Your task to perform on an android device: turn off translation in the chrome app Image 0: 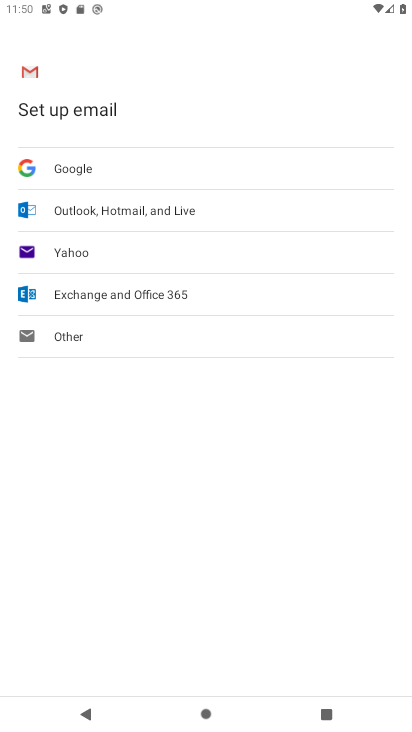
Step 0: press home button
Your task to perform on an android device: turn off translation in the chrome app Image 1: 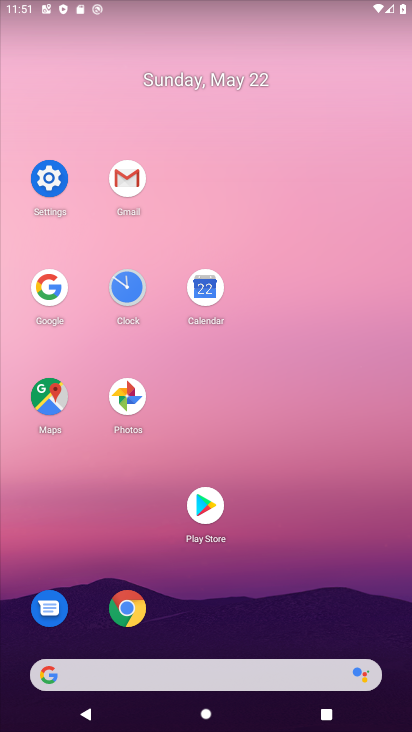
Step 1: click (137, 615)
Your task to perform on an android device: turn off translation in the chrome app Image 2: 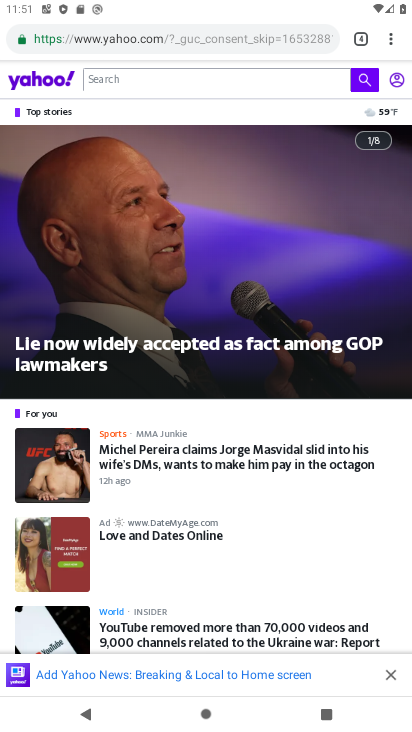
Step 2: click (389, 42)
Your task to perform on an android device: turn off translation in the chrome app Image 3: 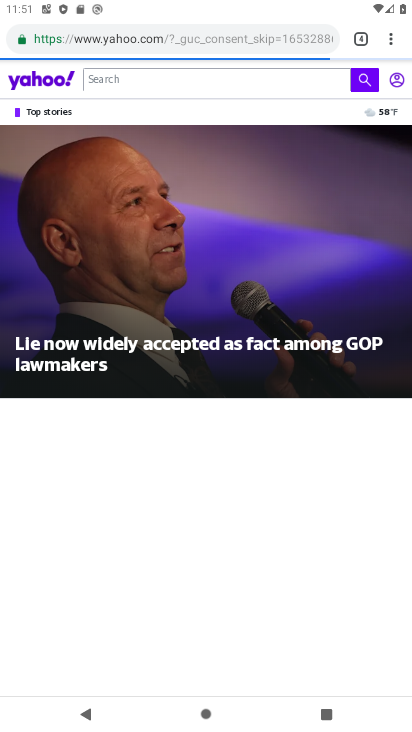
Step 3: click (390, 37)
Your task to perform on an android device: turn off translation in the chrome app Image 4: 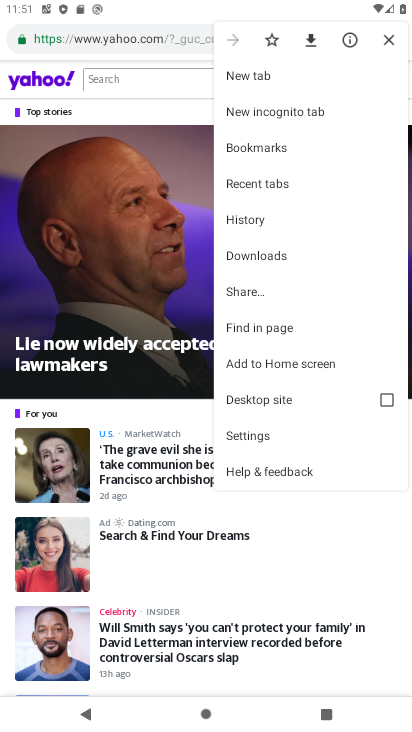
Step 4: click (248, 433)
Your task to perform on an android device: turn off translation in the chrome app Image 5: 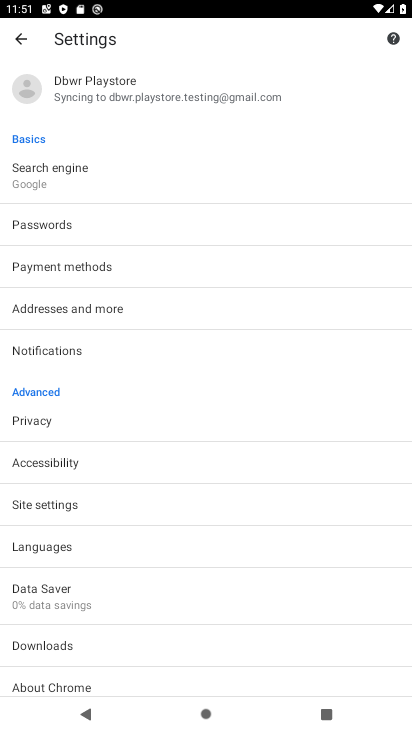
Step 5: click (70, 537)
Your task to perform on an android device: turn off translation in the chrome app Image 6: 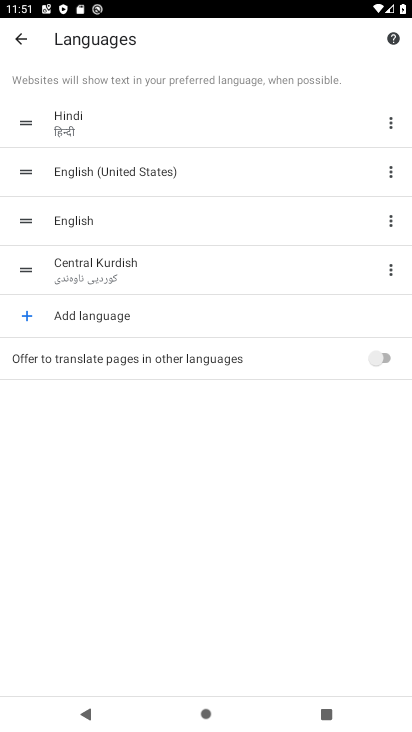
Step 6: task complete